Your task to perform on an android device: When is my next appointment? Image 0: 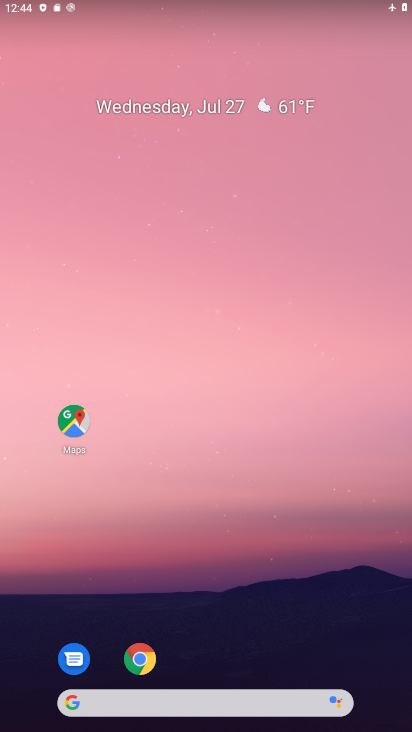
Step 0: drag from (224, 619) to (210, 36)
Your task to perform on an android device: When is my next appointment? Image 1: 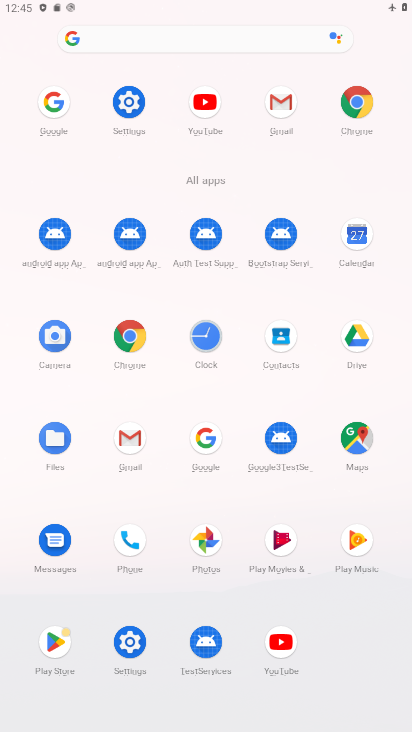
Step 1: click (343, 253)
Your task to perform on an android device: When is my next appointment? Image 2: 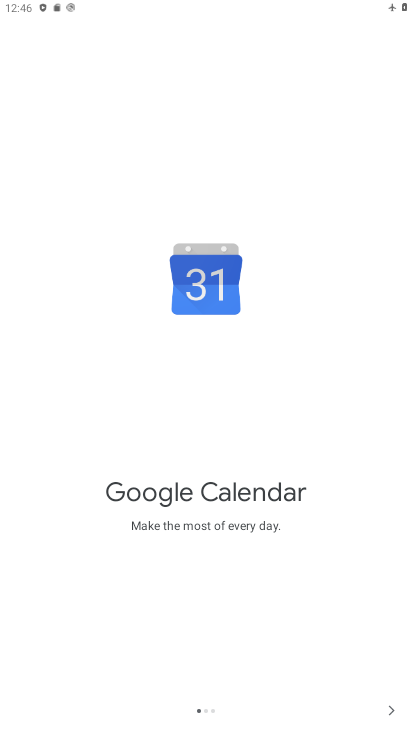
Step 2: click (396, 709)
Your task to perform on an android device: When is my next appointment? Image 3: 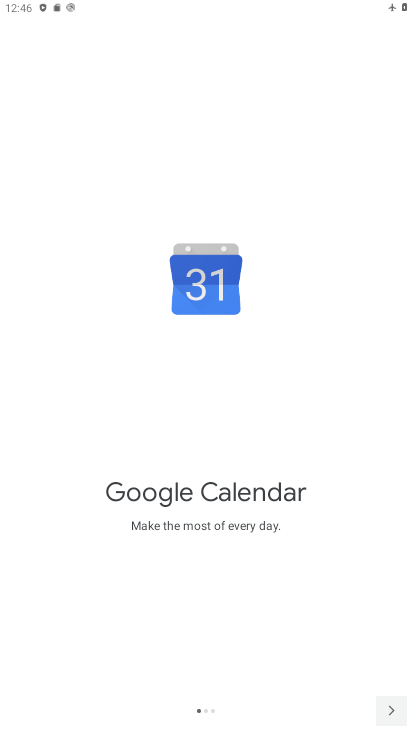
Step 3: click (392, 711)
Your task to perform on an android device: When is my next appointment? Image 4: 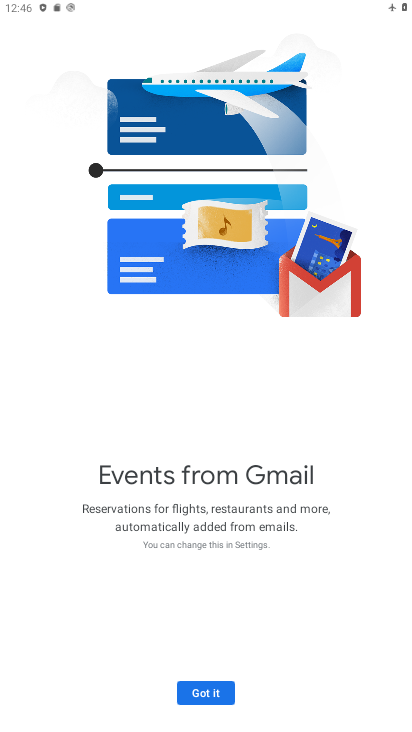
Step 4: click (210, 695)
Your task to perform on an android device: When is my next appointment? Image 5: 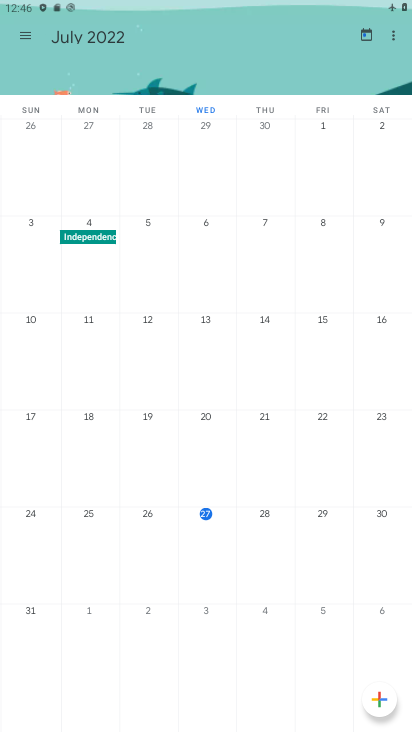
Step 5: click (259, 516)
Your task to perform on an android device: When is my next appointment? Image 6: 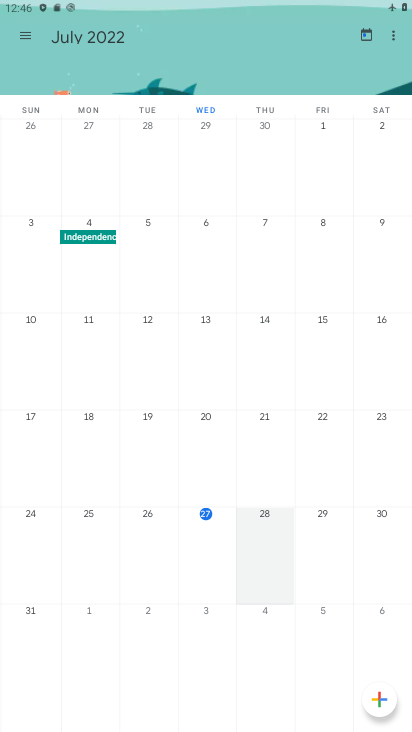
Step 6: click (302, 536)
Your task to perform on an android device: When is my next appointment? Image 7: 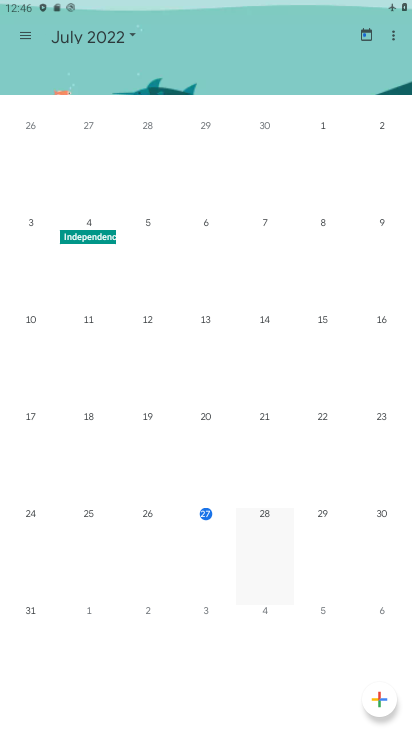
Step 7: click (320, 574)
Your task to perform on an android device: When is my next appointment? Image 8: 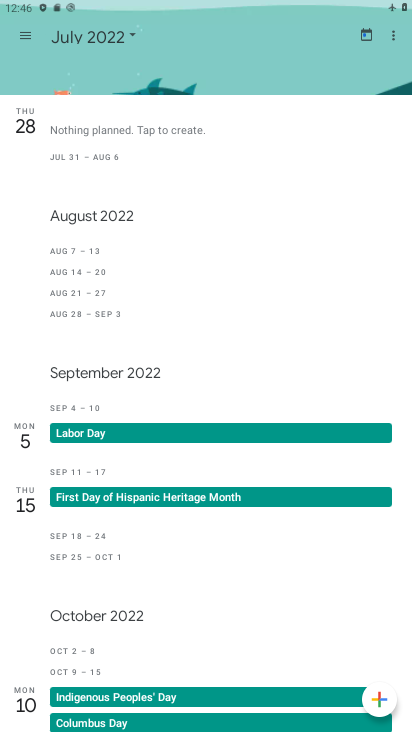
Step 8: task complete